Your task to perform on an android device: Is it going to rain tomorrow? Image 0: 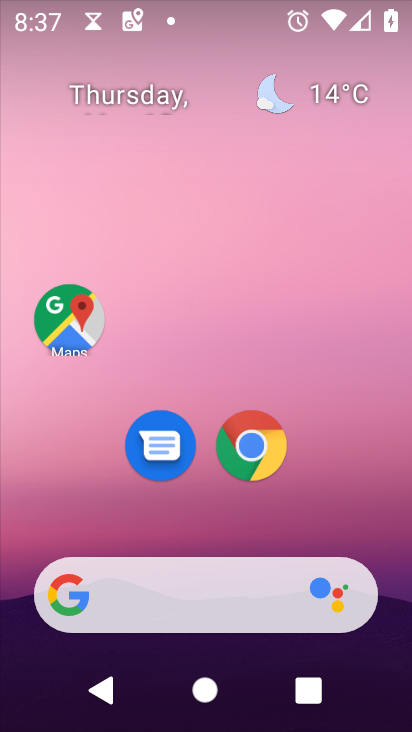
Step 0: drag from (208, 725) to (221, 150)
Your task to perform on an android device: Is it going to rain tomorrow? Image 1: 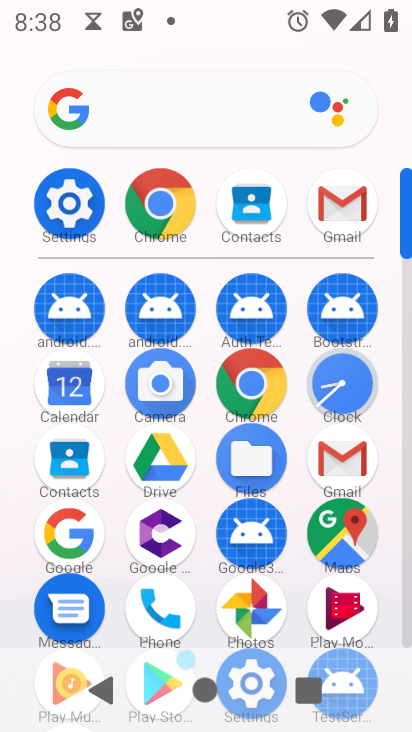
Step 1: click (66, 524)
Your task to perform on an android device: Is it going to rain tomorrow? Image 2: 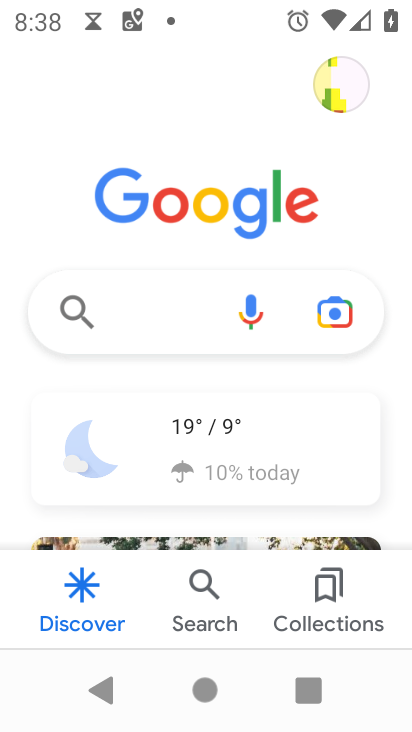
Step 2: click (198, 424)
Your task to perform on an android device: Is it going to rain tomorrow? Image 3: 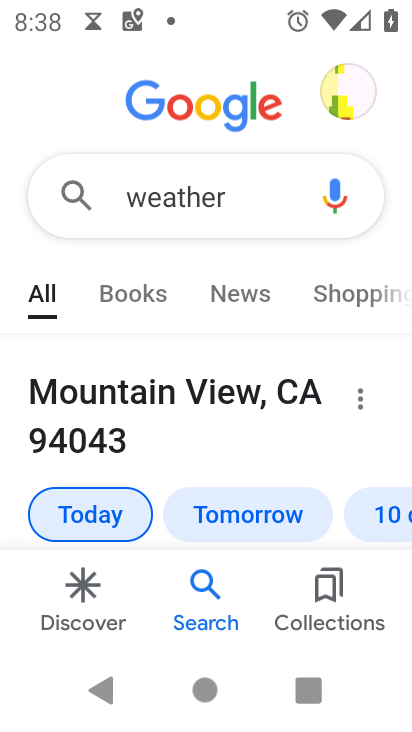
Step 3: click (255, 509)
Your task to perform on an android device: Is it going to rain tomorrow? Image 4: 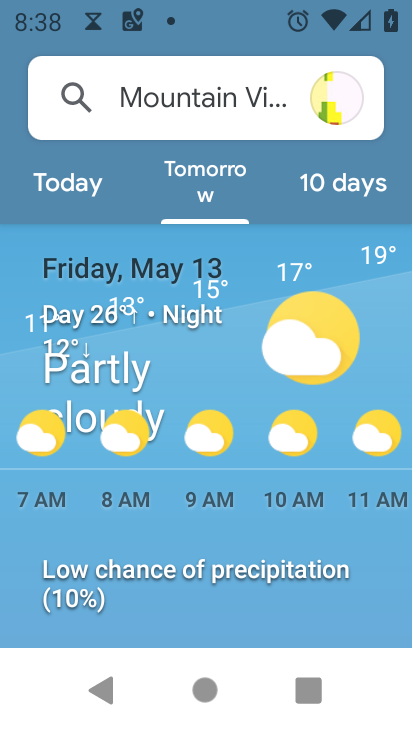
Step 4: task complete